Your task to perform on an android device: open app "The Home Depot" (install if not already installed) Image 0: 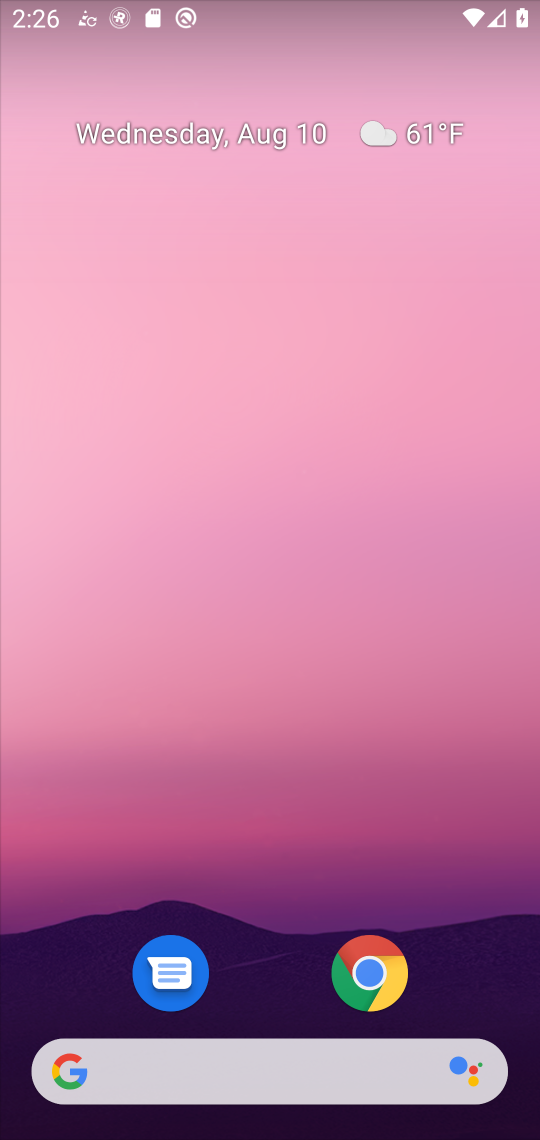
Step 0: drag from (266, 909) to (244, 261)
Your task to perform on an android device: open app "The Home Depot" (install if not already installed) Image 1: 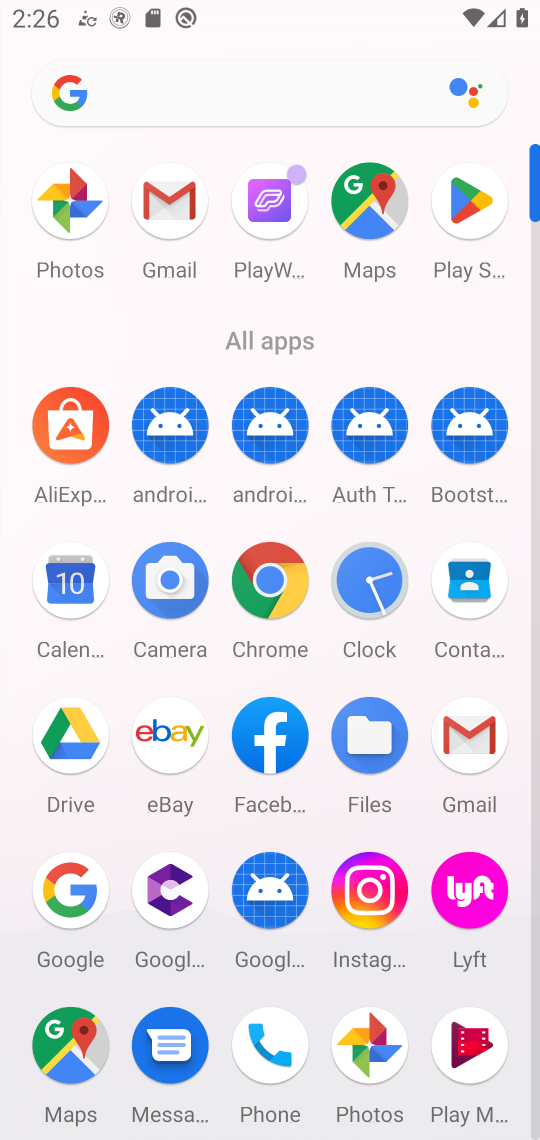
Step 1: click (473, 206)
Your task to perform on an android device: open app "The Home Depot" (install if not already installed) Image 2: 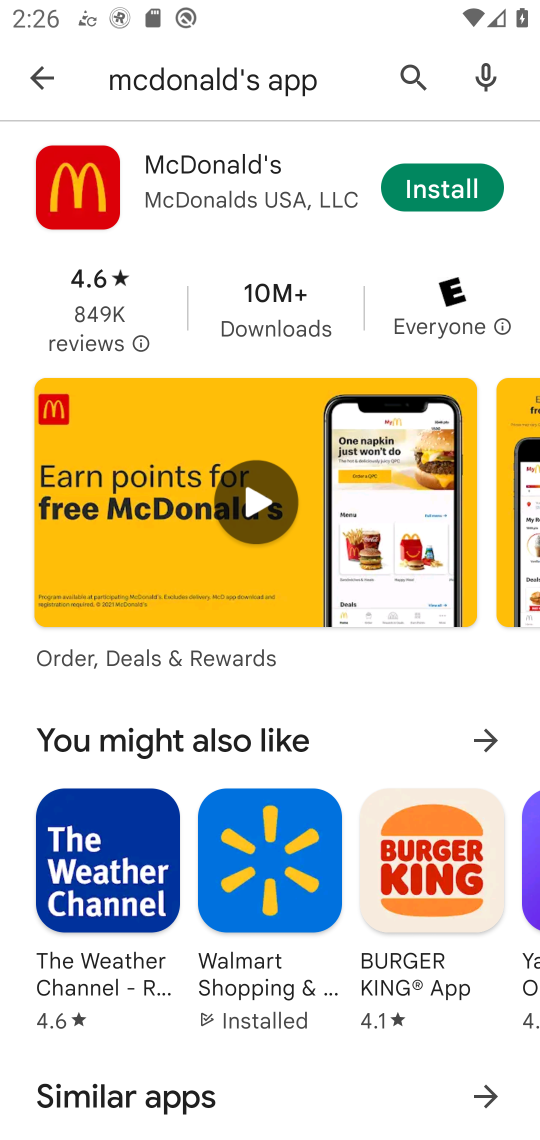
Step 2: click (61, 63)
Your task to perform on an android device: open app "The Home Depot" (install if not already installed) Image 3: 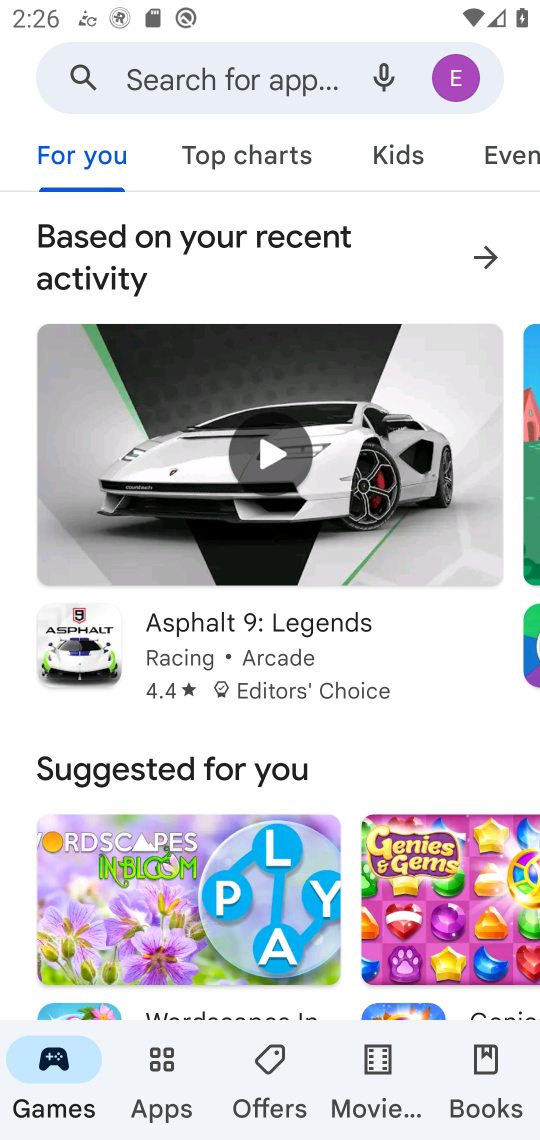
Step 3: click (179, 73)
Your task to perform on an android device: open app "The Home Depot" (install if not already installed) Image 4: 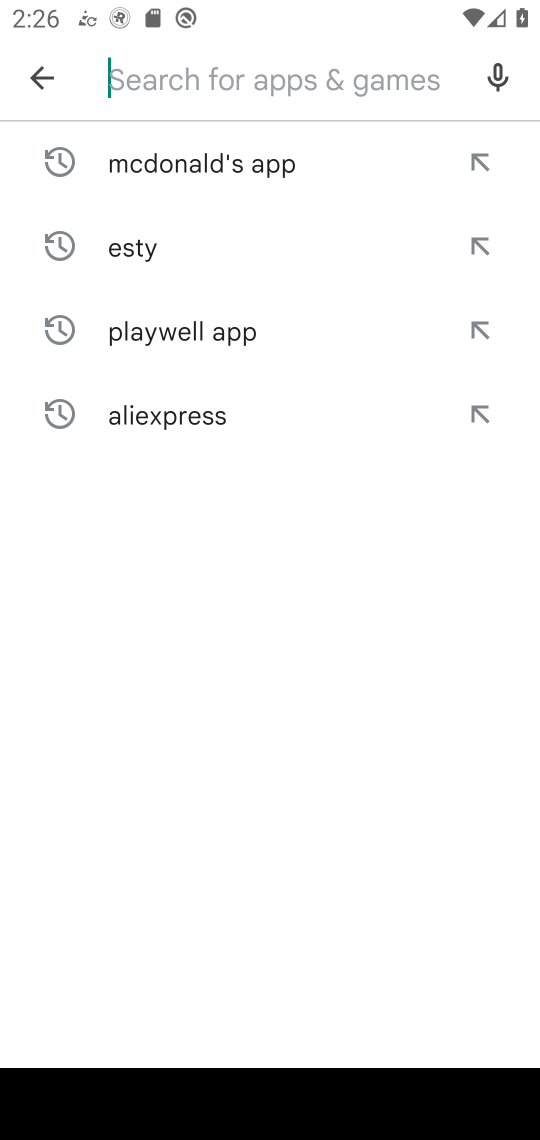
Step 4: type "the home depot "
Your task to perform on an android device: open app "The Home Depot" (install if not already installed) Image 5: 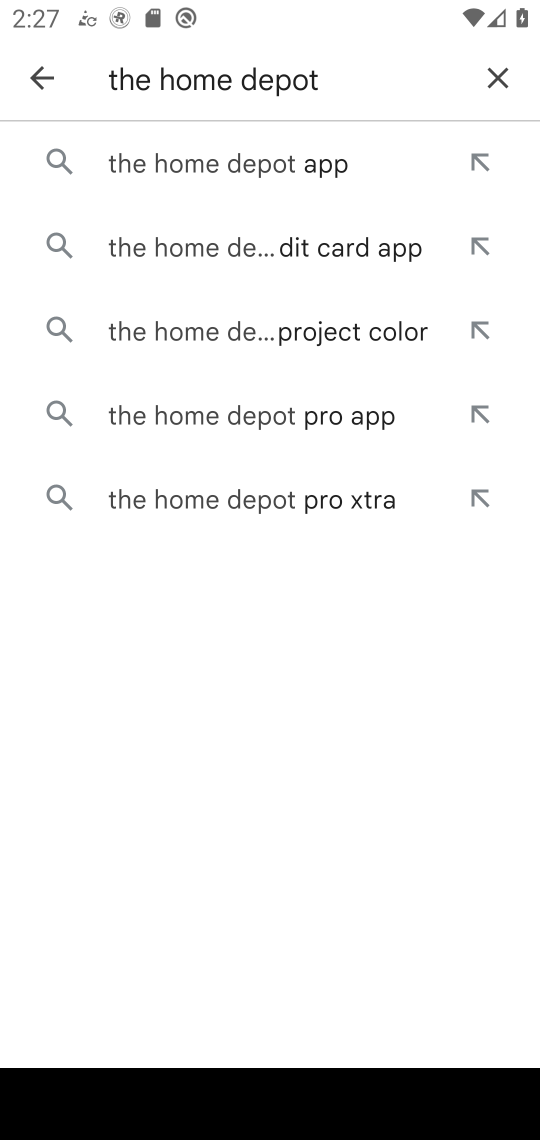
Step 5: click (226, 154)
Your task to perform on an android device: open app "The Home Depot" (install if not already installed) Image 6: 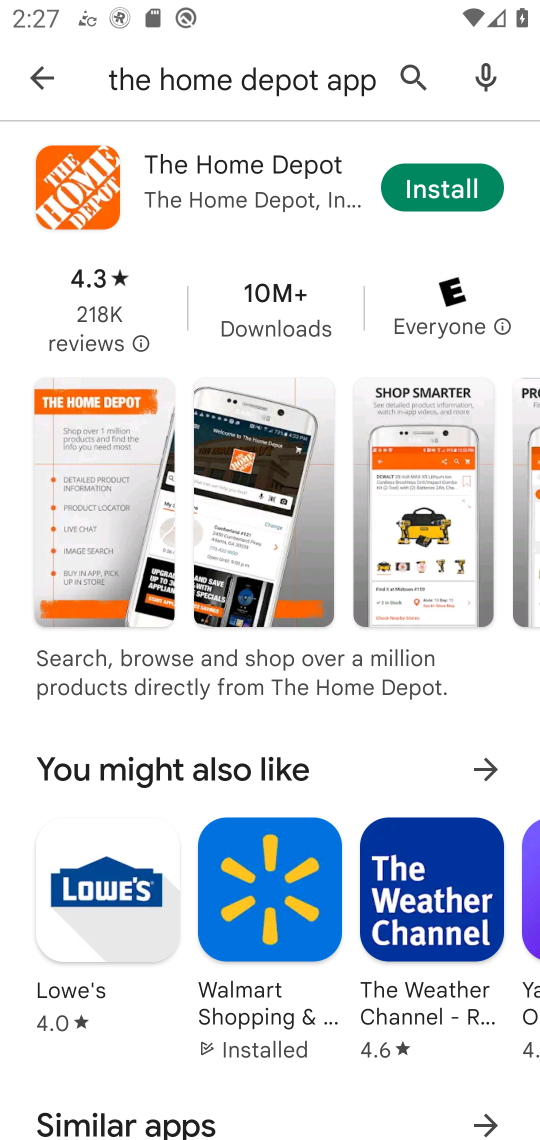
Step 6: click (445, 192)
Your task to perform on an android device: open app "The Home Depot" (install if not already installed) Image 7: 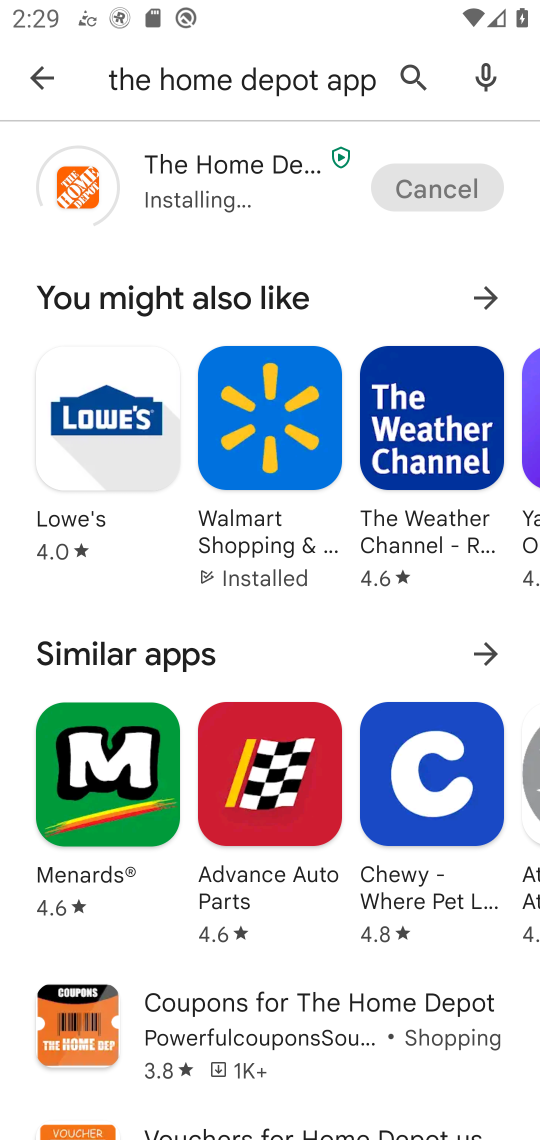
Step 7: task complete